Your task to perform on an android device: find photos in the google photos app Image 0: 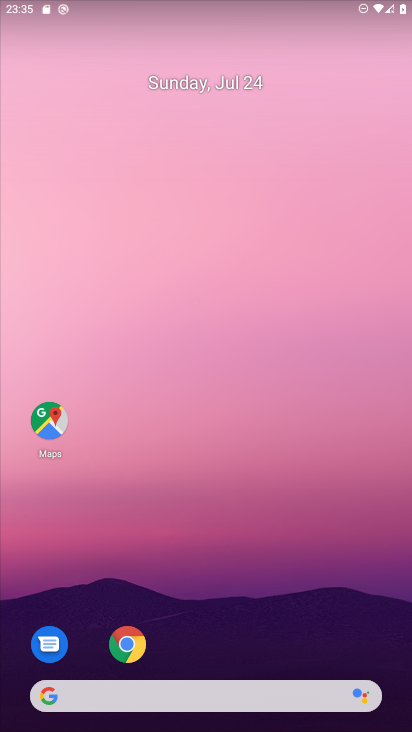
Step 0: drag from (365, 645) to (312, 161)
Your task to perform on an android device: find photos in the google photos app Image 1: 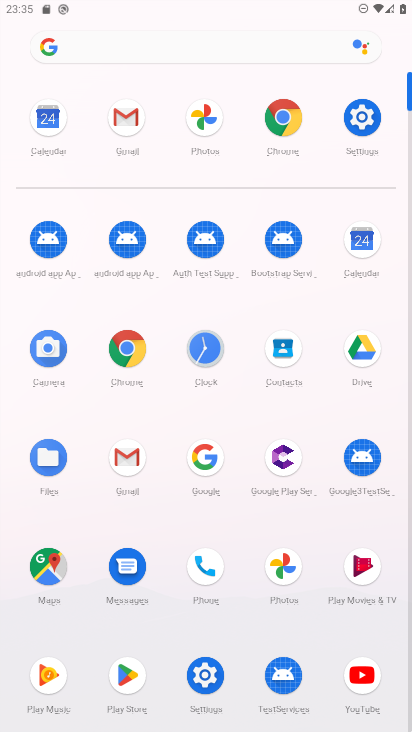
Step 1: click (282, 562)
Your task to perform on an android device: find photos in the google photos app Image 2: 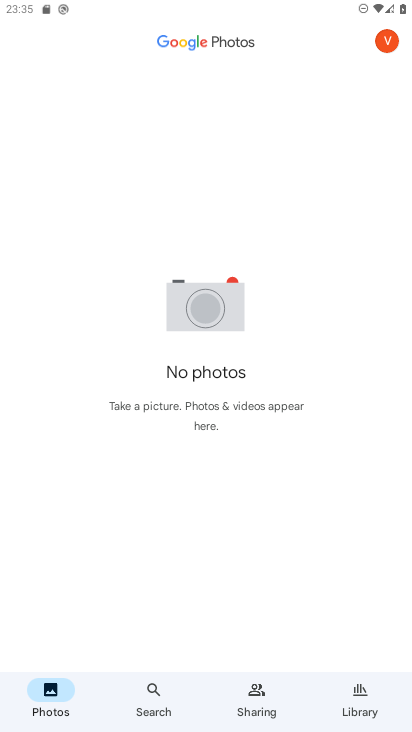
Step 2: task complete